Your task to perform on an android device: Open calendar and show me the first week of next month Image 0: 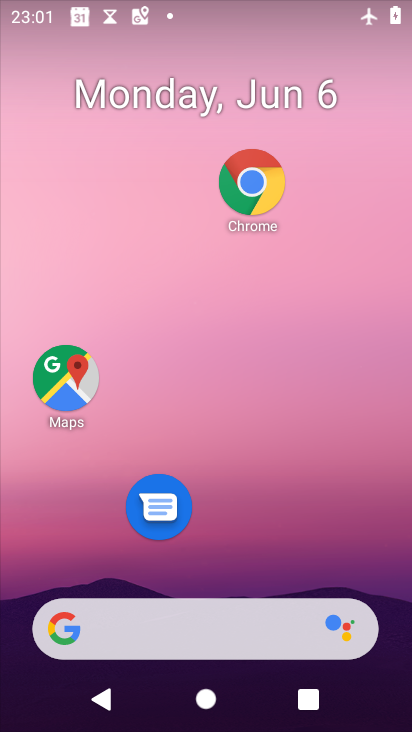
Step 0: drag from (281, 607) to (299, 196)
Your task to perform on an android device: Open calendar and show me the first week of next month Image 1: 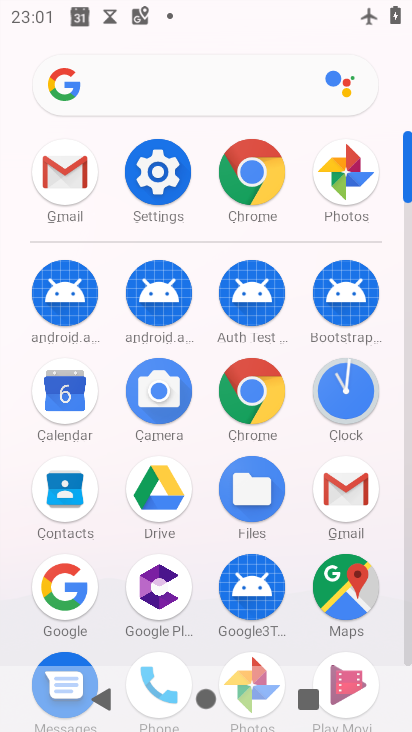
Step 1: click (54, 391)
Your task to perform on an android device: Open calendar and show me the first week of next month Image 2: 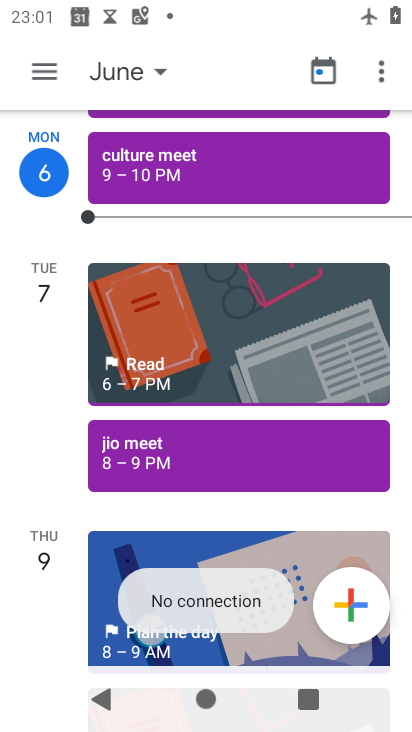
Step 2: click (50, 59)
Your task to perform on an android device: Open calendar and show me the first week of next month Image 3: 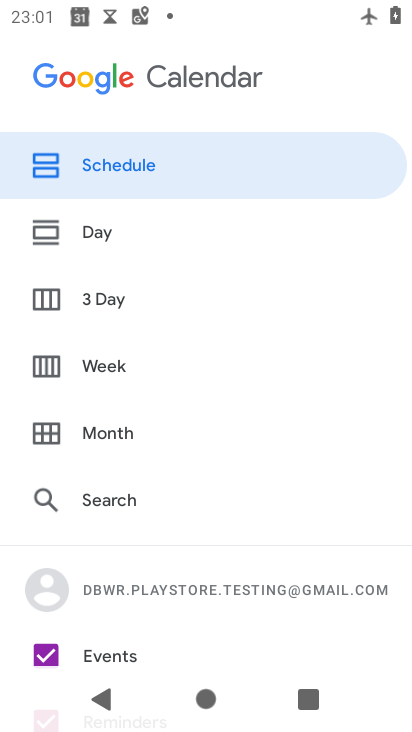
Step 3: click (139, 424)
Your task to perform on an android device: Open calendar and show me the first week of next month Image 4: 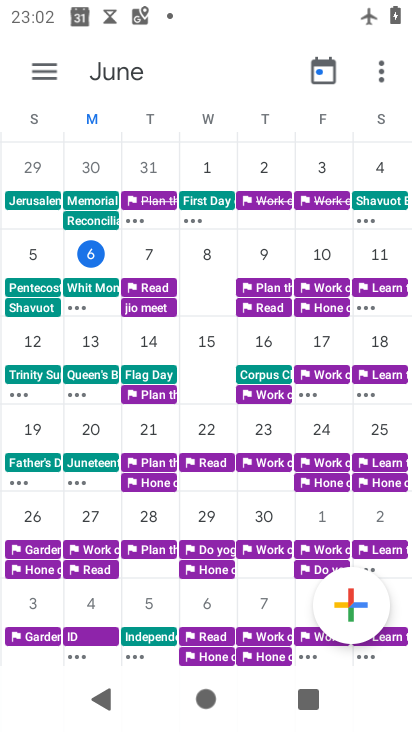
Step 4: task complete